Your task to perform on an android device: Do I have any events this weekend? Image 0: 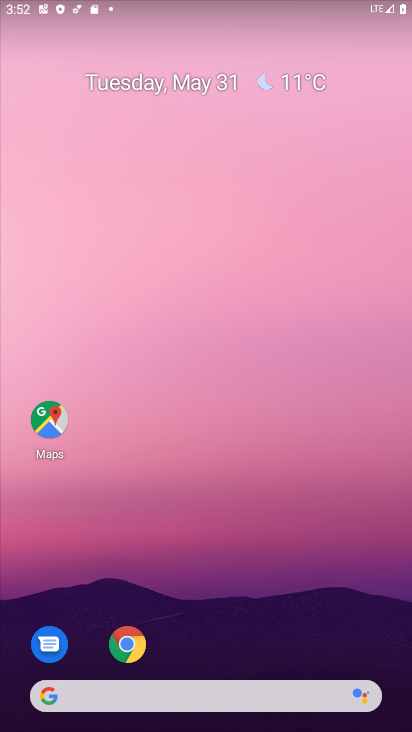
Step 0: drag from (215, 654) to (198, 239)
Your task to perform on an android device: Do I have any events this weekend? Image 1: 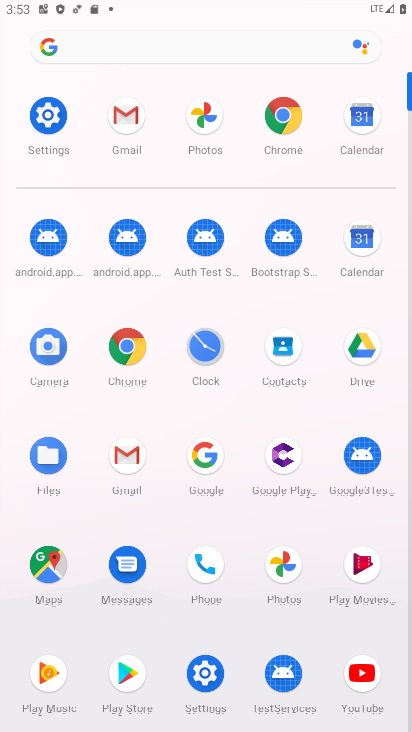
Step 1: click (368, 120)
Your task to perform on an android device: Do I have any events this weekend? Image 2: 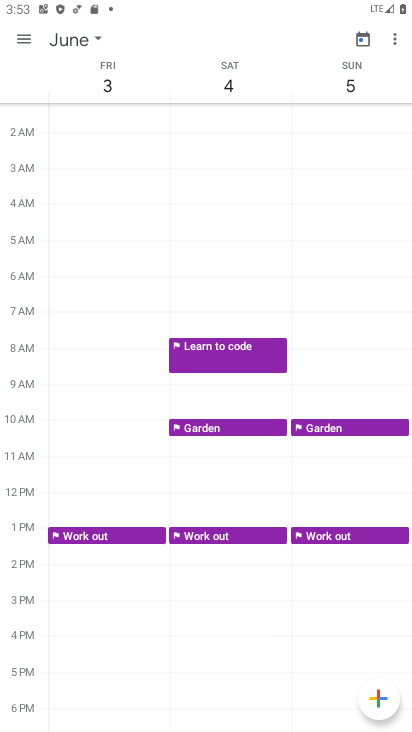
Step 2: task complete